Your task to perform on an android device: visit the assistant section in the google photos Image 0: 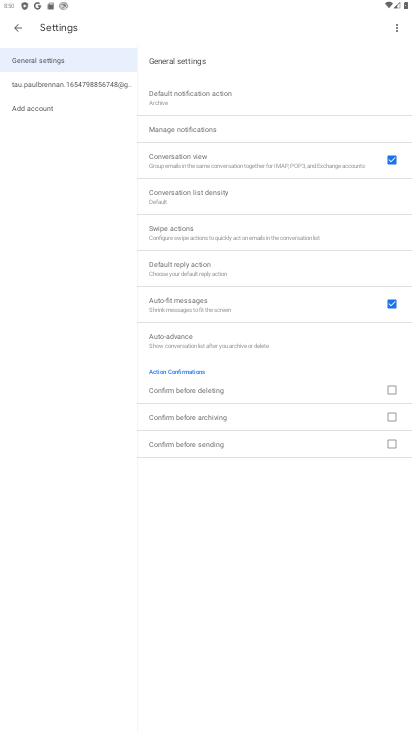
Step 0: press home button
Your task to perform on an android device: visit the assistant section in the google photos Image 1: 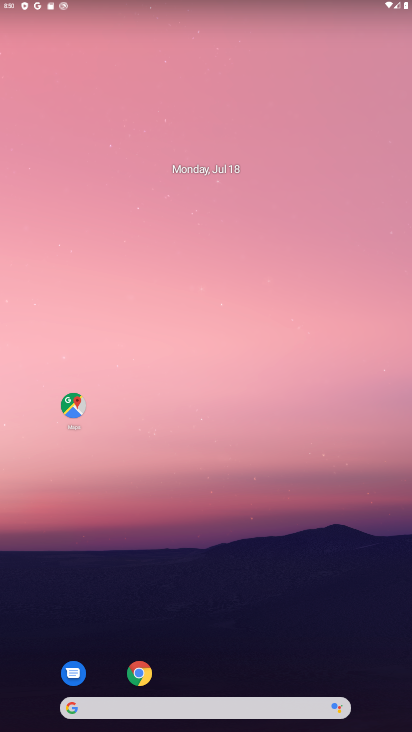
Step 1: drag from (220, 656) to (260, 149)
Your task to perform on an android device: visit the assistant section in the google photos Image 2: 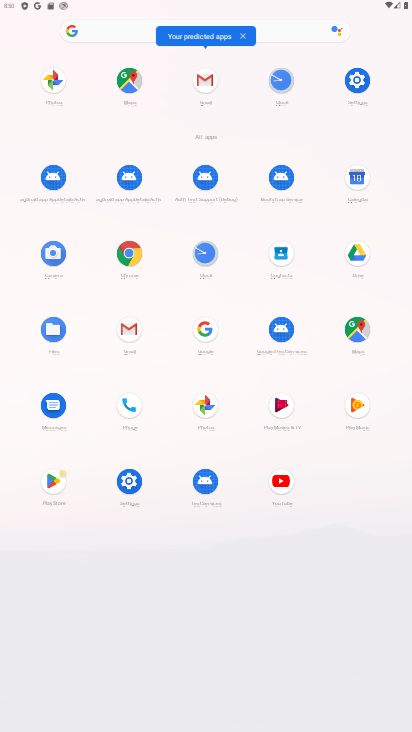
Step 2: click (203, 404)
Your task to perform on an android device: visit the assistant section in the google photos Image 3: 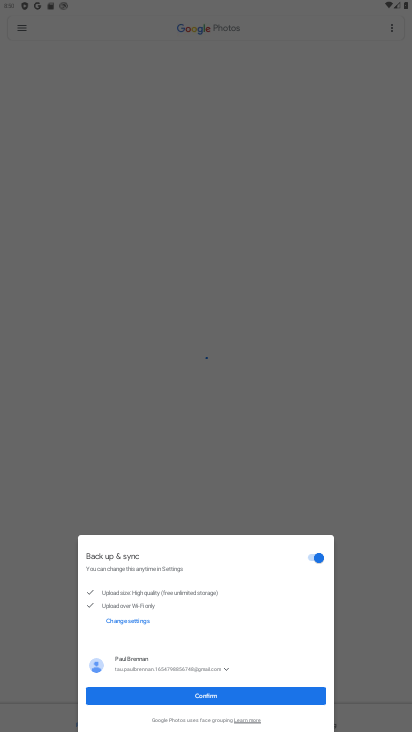
Step 3: click (193, 697)
Your task to perform on an android device: visit the assistant section in the google photos Image 4: 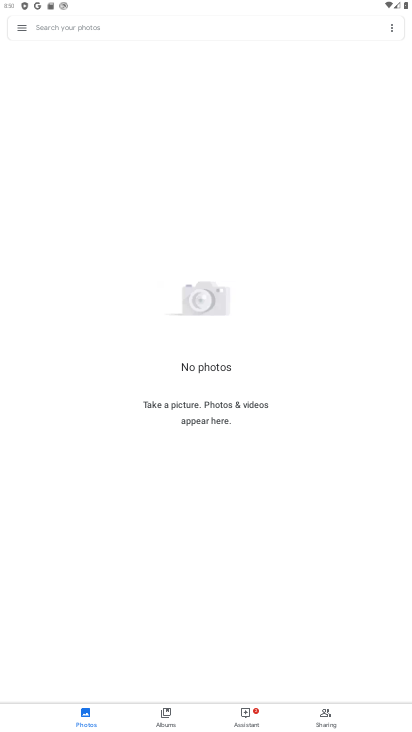
Step 4: click (115, 30)
Your task to perform on an android device: visit the assistant section in the google photos Image 5: 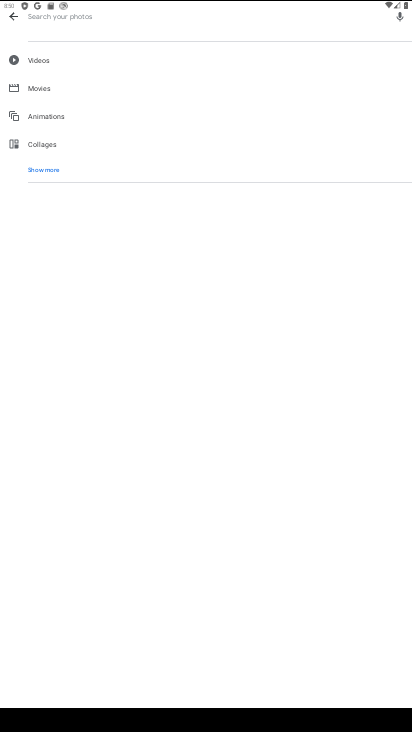
Step 5: task complete